Your task to perform on an android device: Go to settings Image 0: 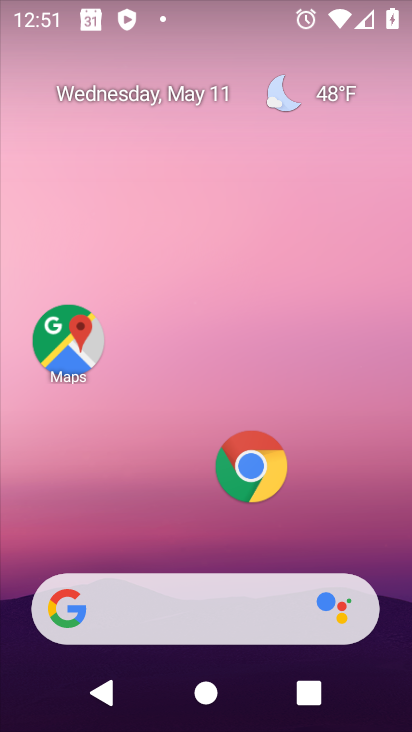
Step 0: drag from (158, 457) to (246, 32)
Your task to perform on an android device: Go to settings Image 1: 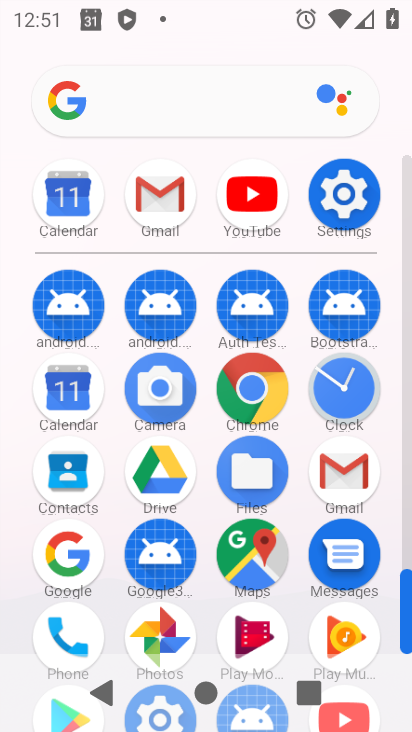
Step 1: click (354, 179)
Your task to perform on an android device: Go to settings Image 2: 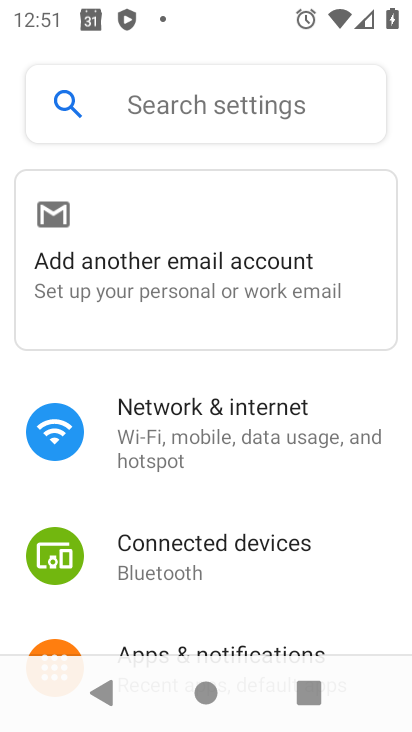
Step 2: task complete